Your task to perform on an android device: toggle notification dots Image 0: 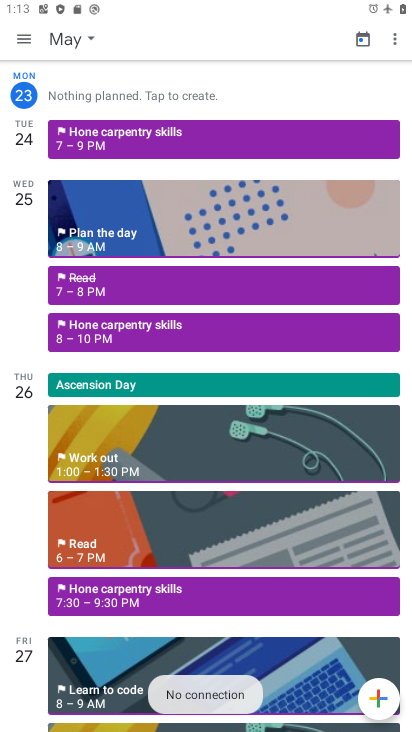
Step 0: press home button
Your task to perform on an android device: toggle notification dots Image 1: 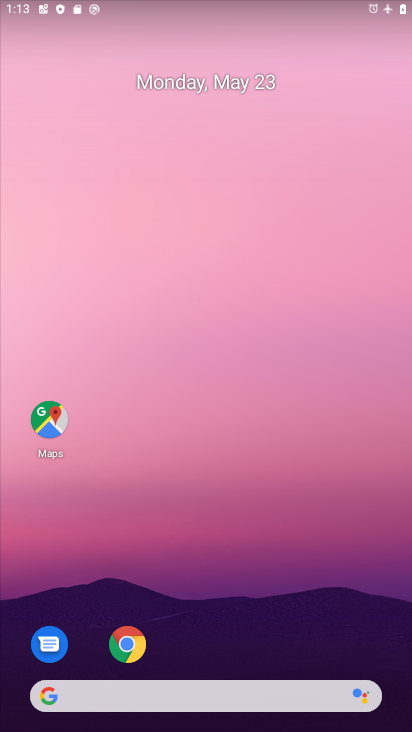
Step 1: drag from (250, 630) to (194, 125)
Your task to perform on an android device: toggle notification dots Image 2: 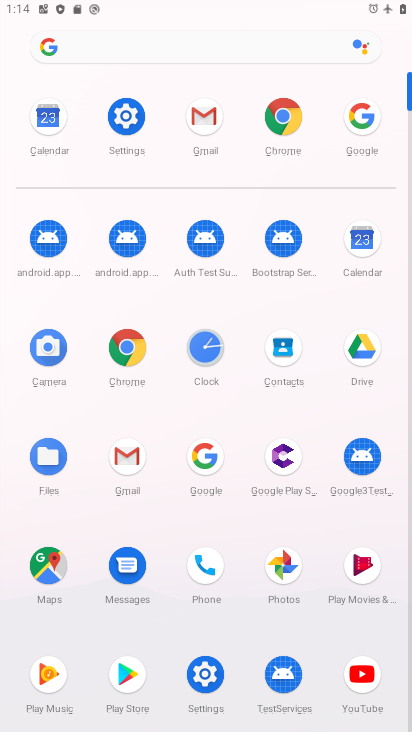
Step 2: click (206, 691)
Your task to perform on an android device: toggle notification dots Image 3: 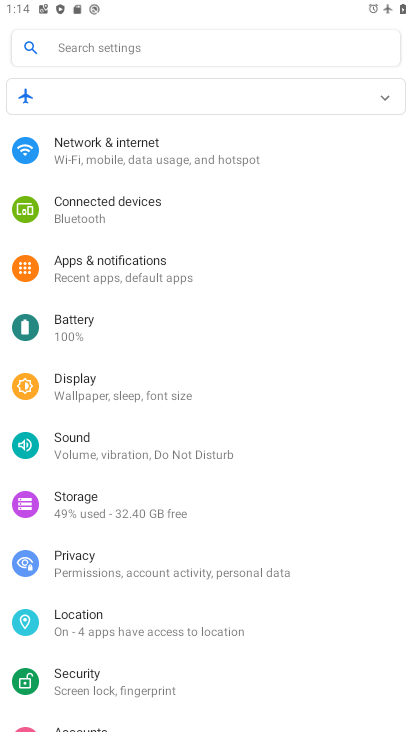
Step 3: click (159, 273)
Your task to perform on an android device: toggle notification dots Image 4: 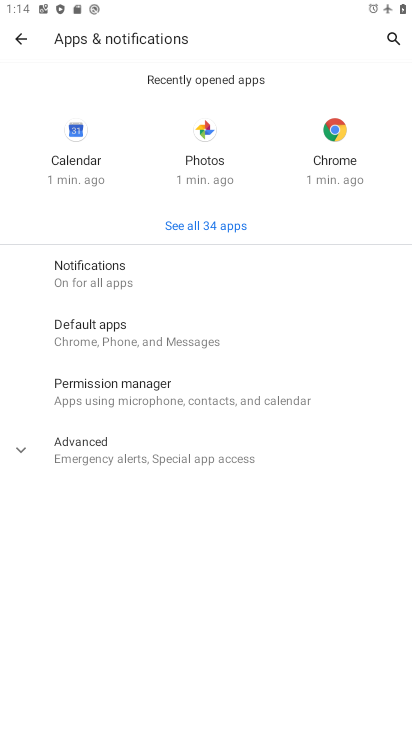
Step 4: click (130, 279)
Your task to perform on an android device: toggle notification dots Image 5: 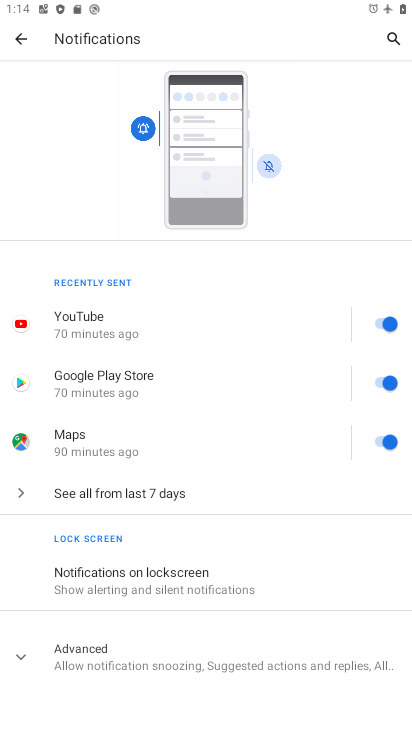
Step 5: click (108, 664)
Your task to perform on an android device: toggle notification dots Image 6: 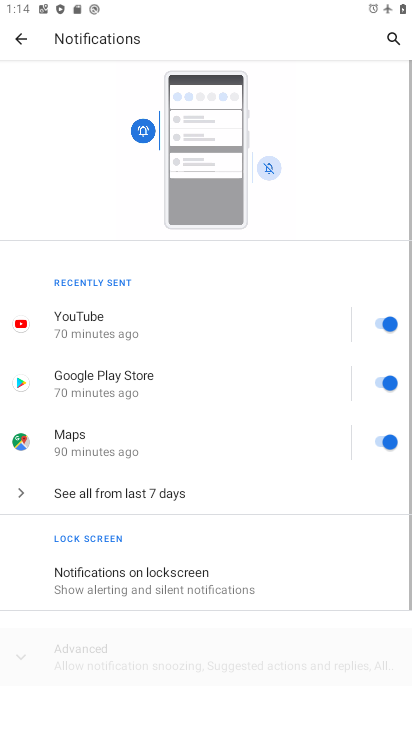
Step 6: drag from (108, 664) to (241, 107)
Your task to perform on an android device: toggle notification dots Image 7: 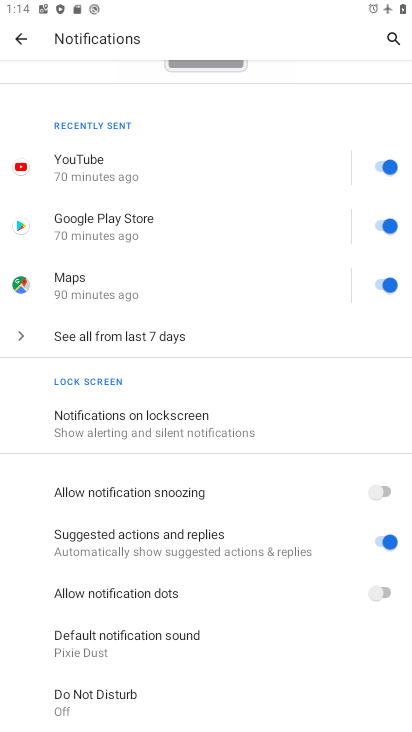
Step 7: click (203, 596)
Your task to perform on an android device: toggle notification dots Image 8: 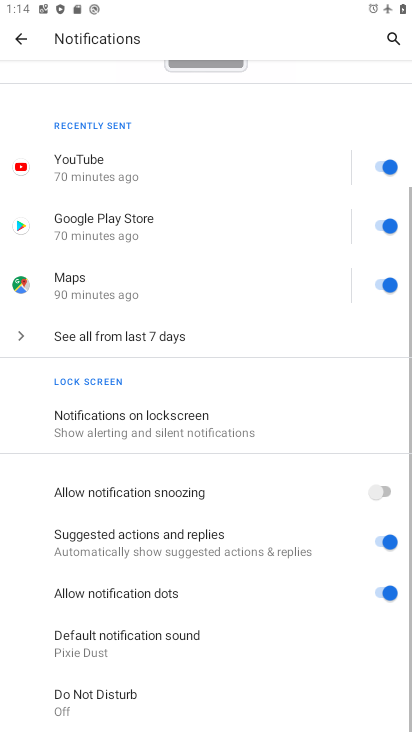
Step 8: task complete